Your task to perform on an android device: turn notification dots on Image 0: 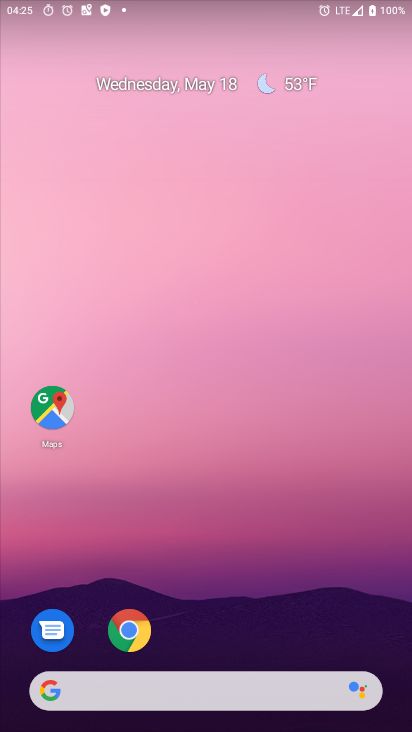
Step 0: drag from (226, 729) to (223, 168)
Your task to perform on an android device: turn notification dots on Image 1: 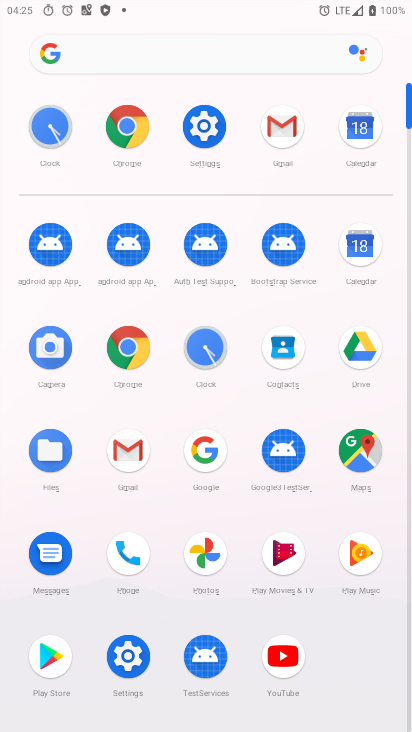
Step 1: click (114, 658)
Your task to perform on an android device: turn notification dots on Image 2: 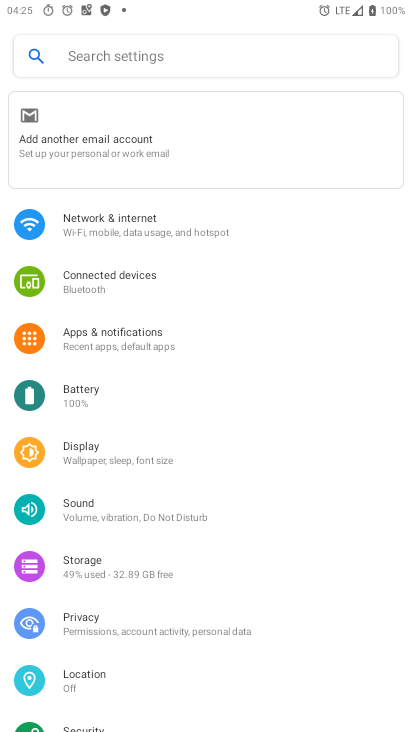
Step 2: click (115, 337)
Your task to perform on an android device: turn notification dots on Image 3: 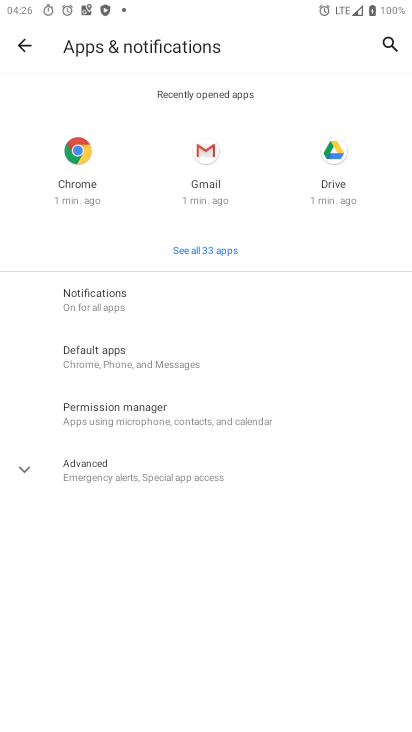
Step 3: click (99, 302)
Your task to perform on an android device: turn notification dots on Image 4: 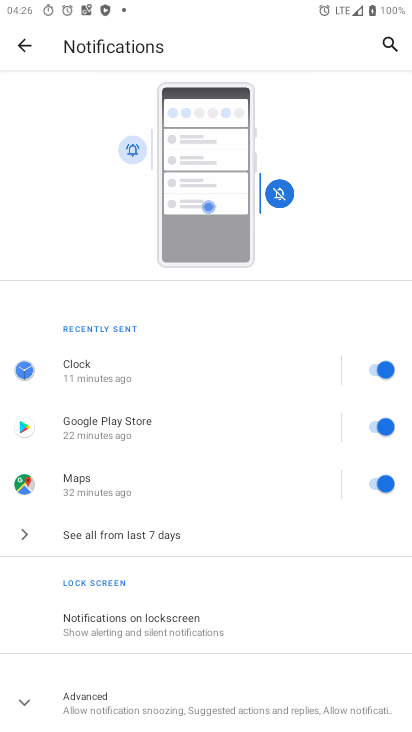
Step 4: click (180, 708)
Your task to perform on an android device: turn notification dots on Image 5: 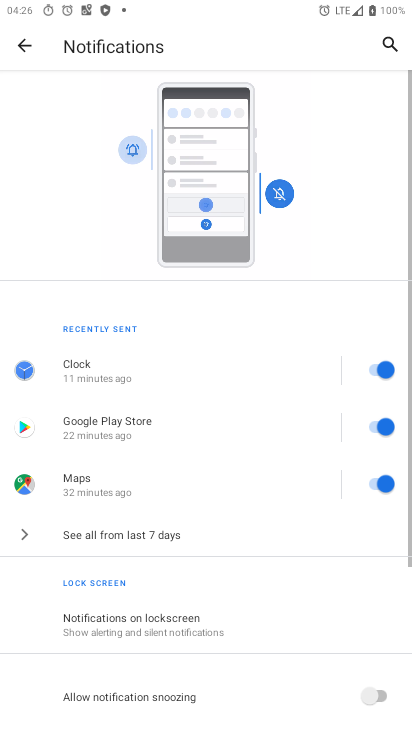
Step 5: drag from (236, 688) to (249, 292)
Your task to perform on an android device: turn notification dots on Image 6: 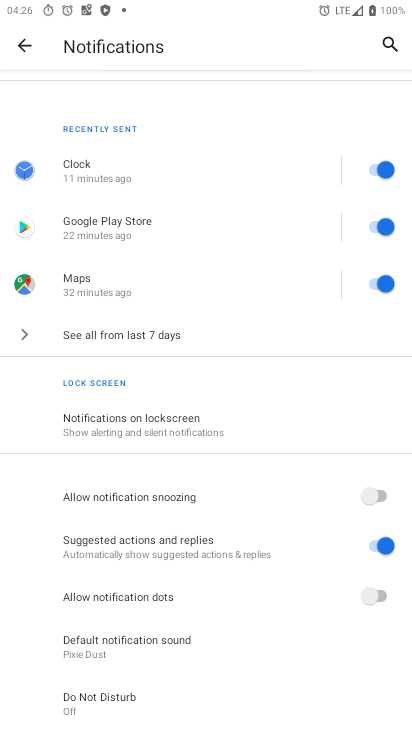
Step 6: click (378, 596)
Your task to perform on an android device: turn notification dots on Image 7: 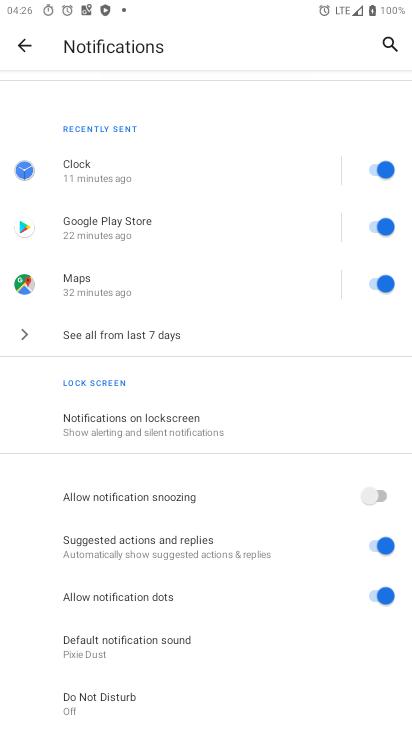
Step 7: task complete